Your task to perform on an android device: How much does a 2 bedroom apartment rent for in New York? Image 0: 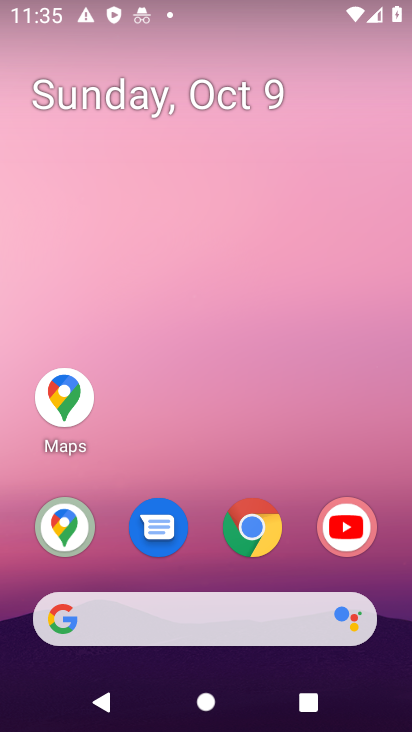
Step 0: click (253, 541)
Your task to perform on an android device: How much does a 2 bedroom apartment rent for in New York? Image 1: 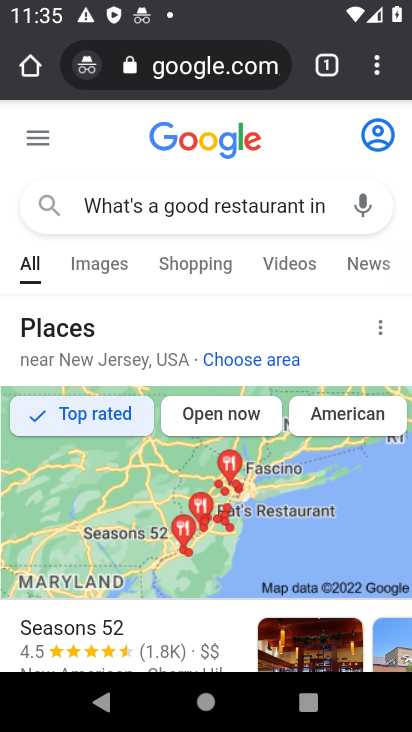
Step 1: click (201, 74)
Your task to perform on an android device: How much does a 2 bedroom apartment rent for in New York? Image 2: 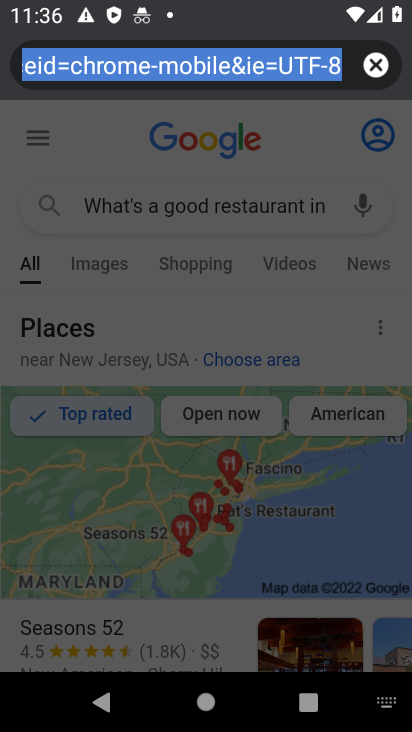
Step 2: type "How much does a 2 bedroom apartment rent for in New York?"
Your task to perform on an android device: How much does a 2 bedroom apartment rent for in New York? Image 3: 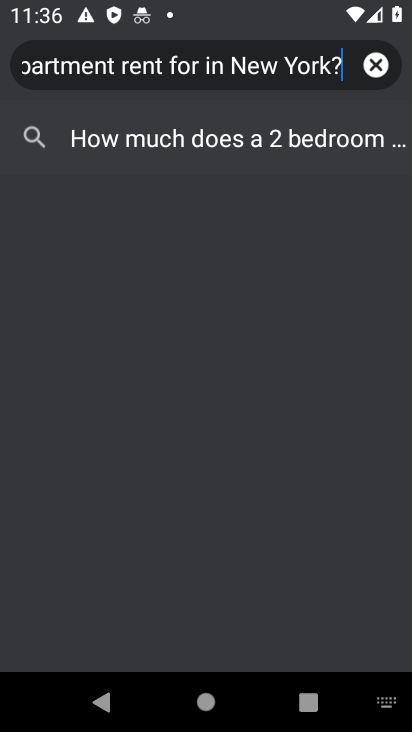
Step 3: click (234, 149)
Your task to perform on an android device: How much does a 2 bedroom apartment rent for in New York? Image 4: 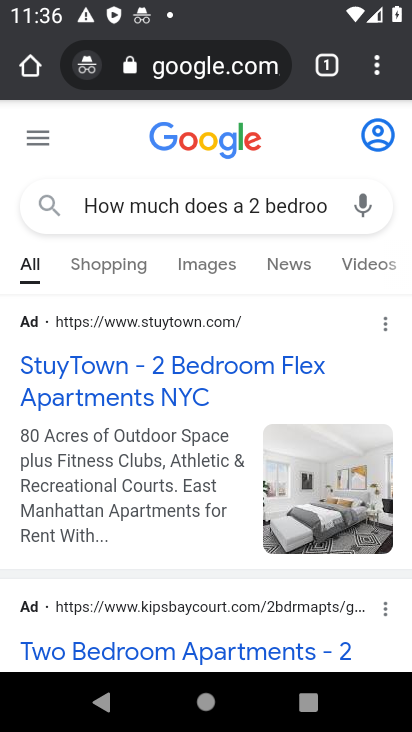
Step 4: click (127, 406)
Your task to perform on an android device: How much does a 2 bedroom apartment rent for in New York? Image 5: 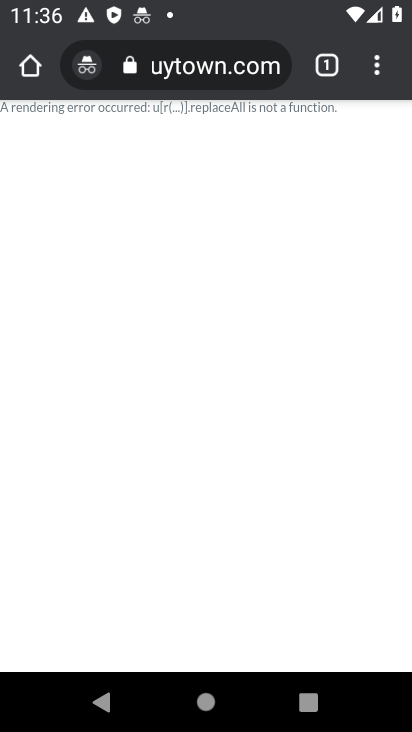
Step 5: task complete